Your task to perform on an android device: turn off javascript in the chrome app Image 0: 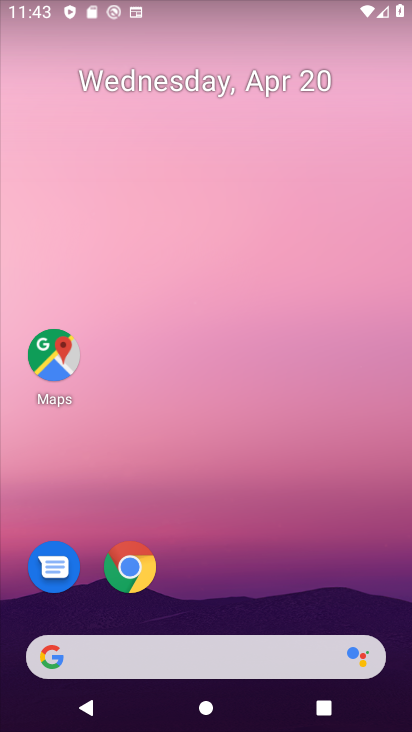
Step 0: click (142, 567)
Your task to perform on an android device: turn off javascript in the chrome app Image 1: 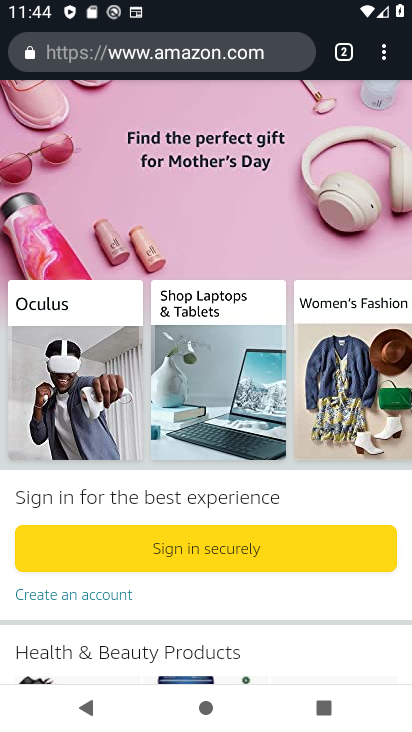
Step 1: click (382, 53)
Your task to perform on an android device: turn off javascript in the chrome app Image 2: 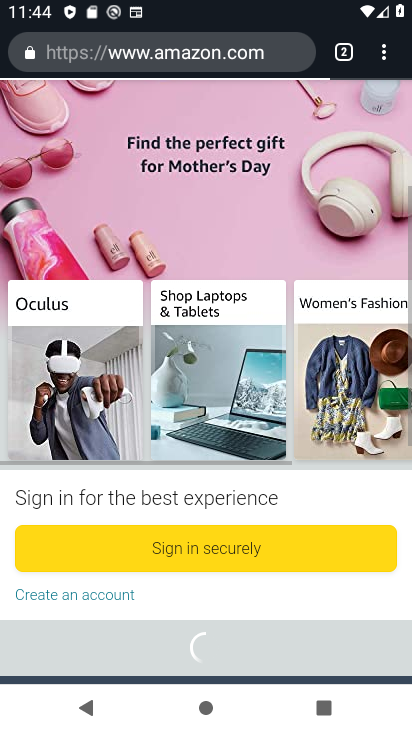
Step 2: click (382, 53)
Your task to perform on an android device: turn off javascript in the chrome app Image 3: 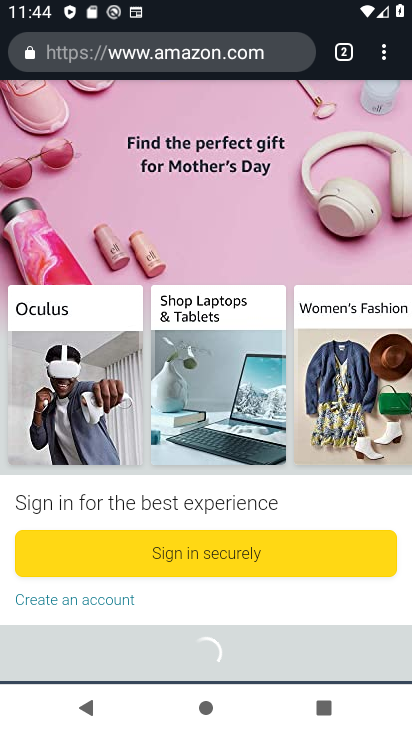
Step 3: click (382, 53)
Your task to perform on an android device: turn off javascript in the chrome app Image 4: 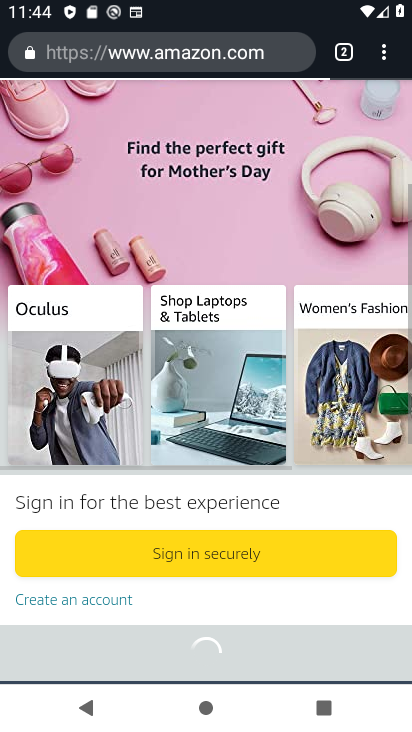
Step 4: click (382, 53)
Your task to perform on an android device: turn off javascript in the chrome app Image 5: 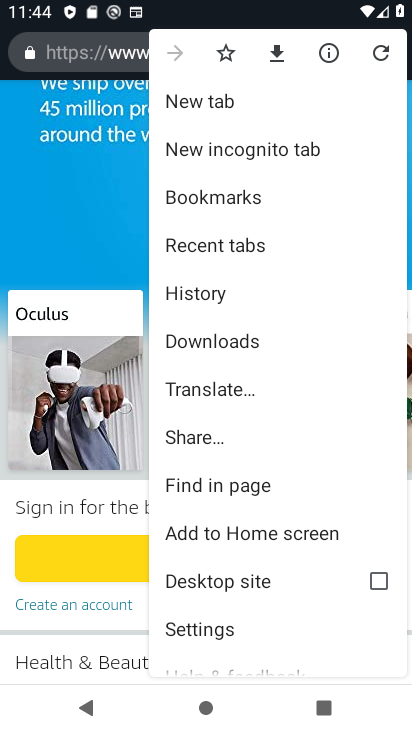
Step 5: click (209, 626)
Your task to perform on an android device: turn off javascript in the chrome app Image 6: 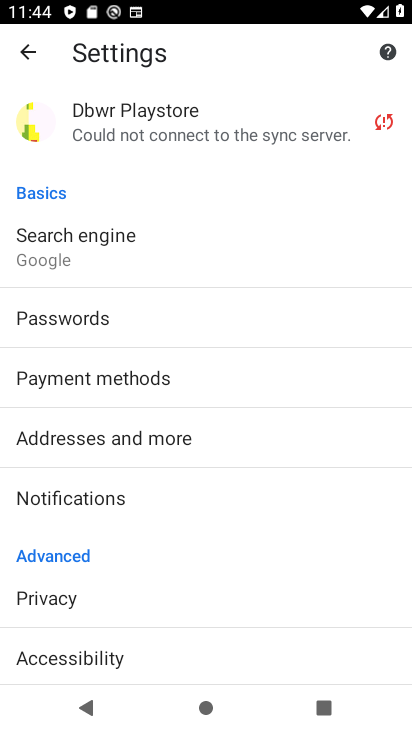
Step 6: drag from (84, 664) to (140, 432)
Your task to perform on an android device: turn off javascript in the chrome app Image 7: 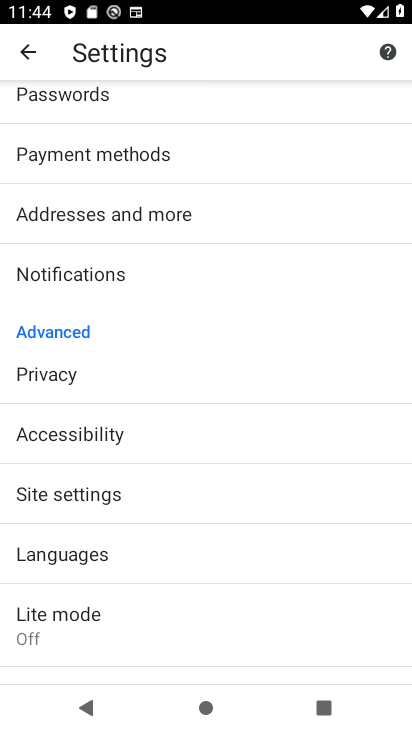
Step 7: click (75, 478)
Your task to perform on an android device: turn off javascript in the chrome app Image 8: 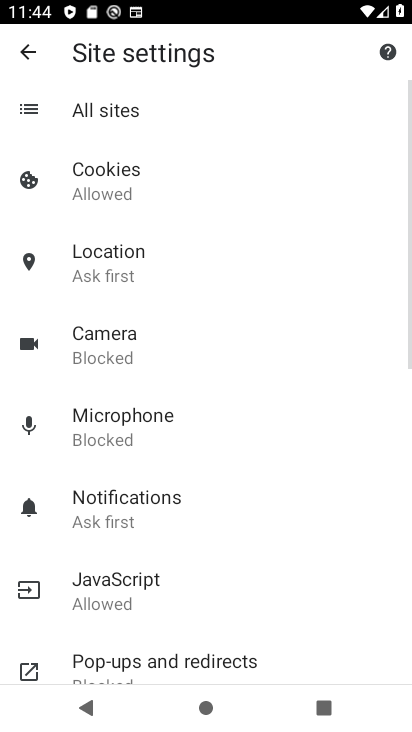
Step 8: click (109, 586)
Your task to perform on an android device: turn off javascript in the chrome app Image 9: 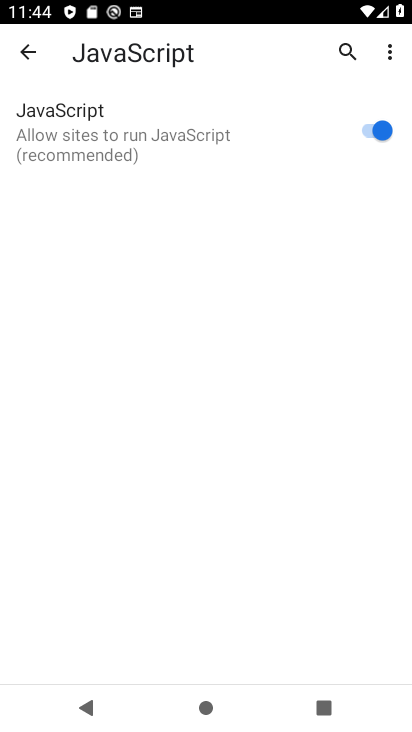
Step 9: click (368, 125)
Your task to perform on an android device: turn off javascript in the chrome app Image 10: 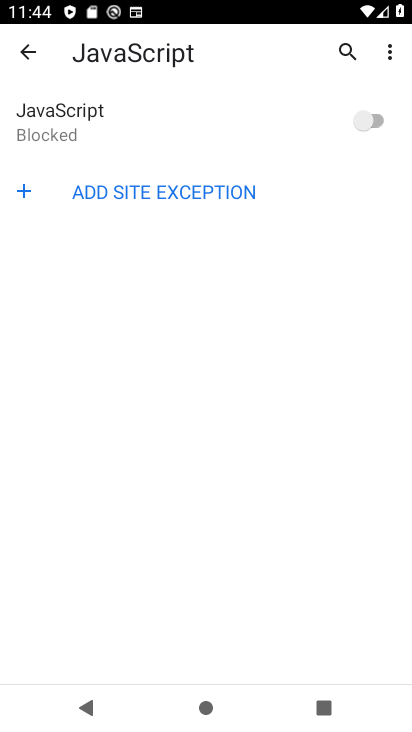
Step 10: task complete